Your task to perform on an android device: add a label to a message in the gmail app Image 0: 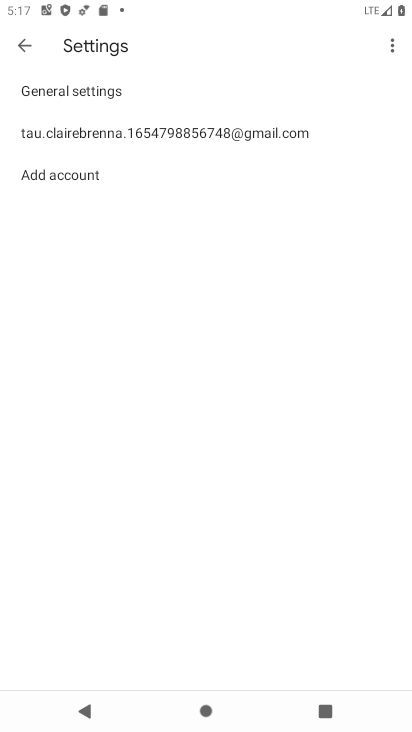
Step 0: press home button
Your task to perform on an android device: add a label to a message in the gmail app Image 1: 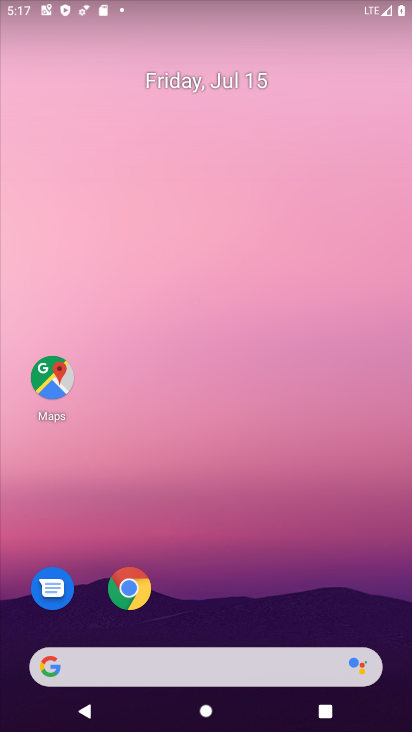
Step 1: drag from (281, 646) to (382, 27)
Your task to perform on an android device: add a label to a message in the gmail app Image 2: 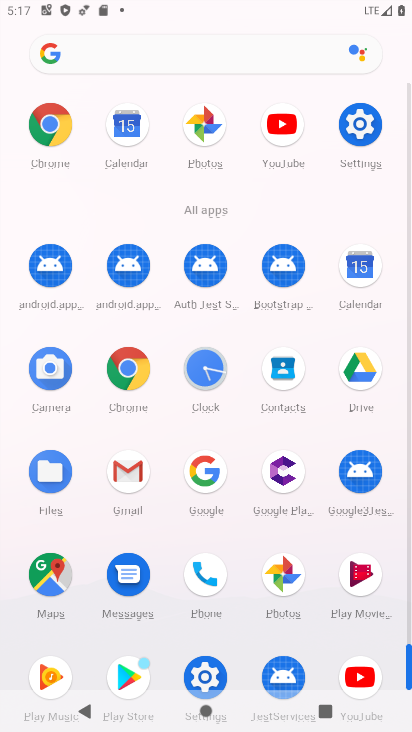
Step 2: click (124, 465)
Your task to perform on an android device: add a label to a message in the gmail app Image 3: 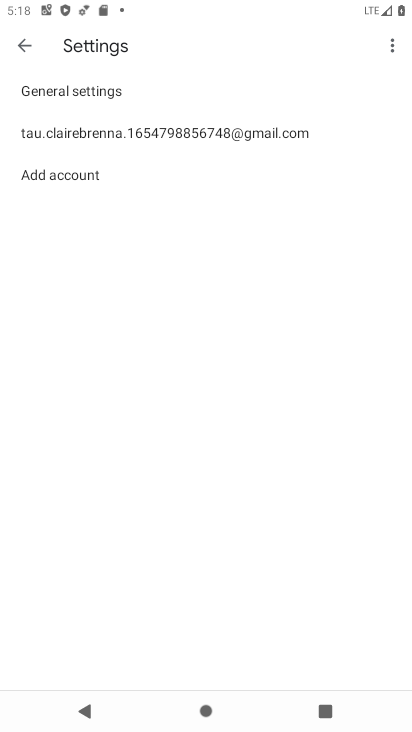
Step 3: press back button
Your task to perform on an android device: add a label to a message in the gmail app Image 4: 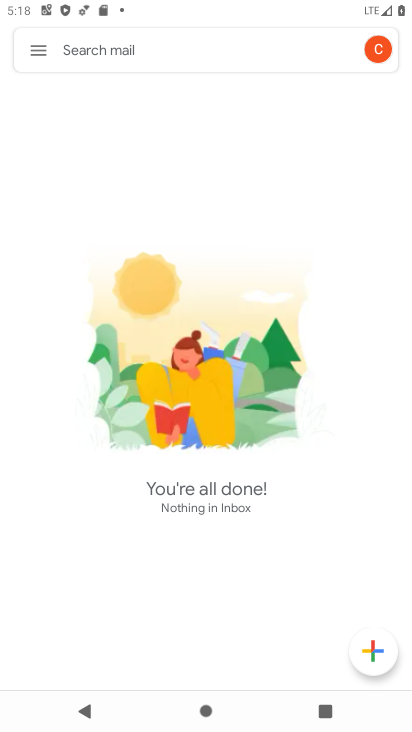
Step 4: click (40, 56)
Your task to perform on an android device: add a label to a message in the gmail app Image 5: 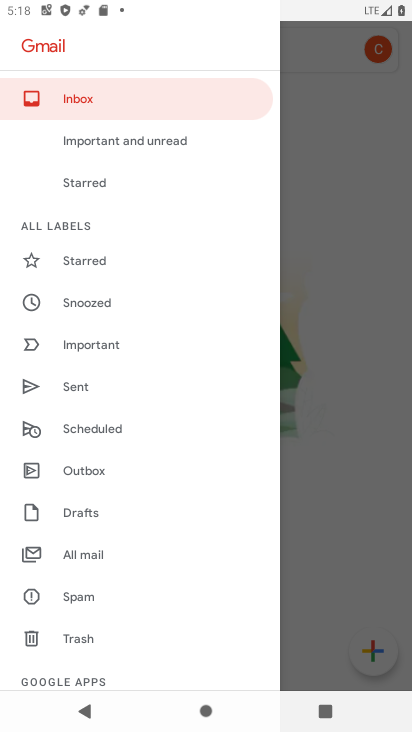
Step 5: drag from (146, 589) to (142, 144)
Your task to perform on an android device: add a label to a message in the gmail app Image 6: 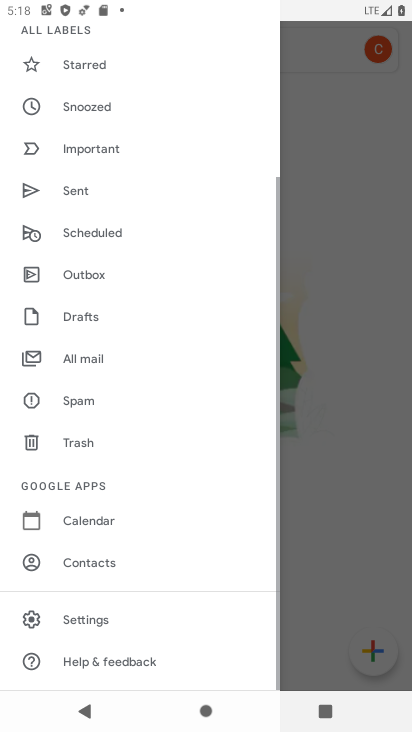
Step 6: click (125, 626)
Your task to perform on an android device: add a label to a message in the gmail app Image 7: 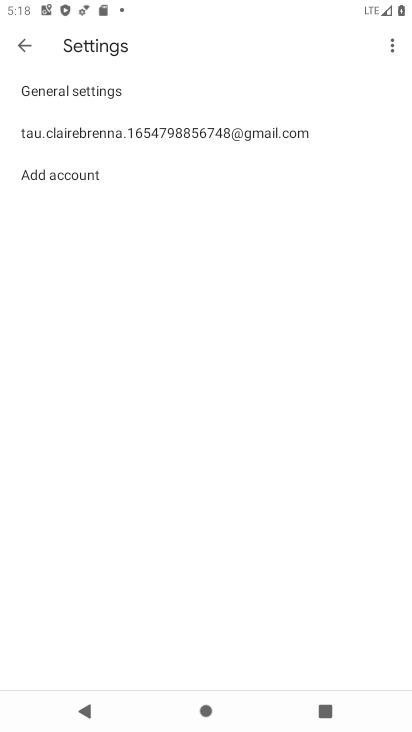
Step 7: press back button
Your task to perform on an android device: add a label to a message in the gmail app Image 8: 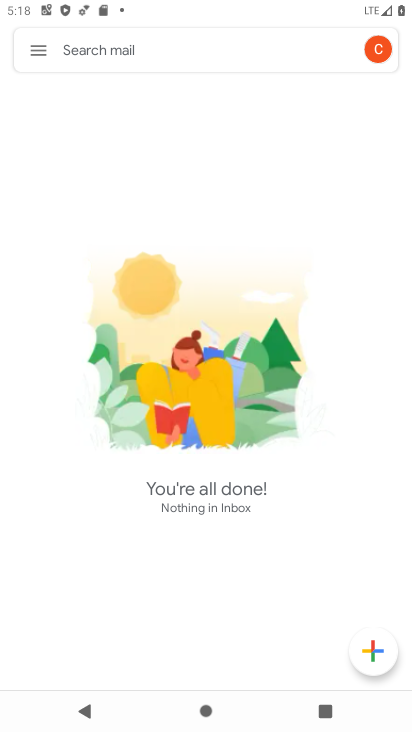
Step 8: click (30, 56)
Your task to perform on an android device: add a label to a message in the gmail app Image 9: 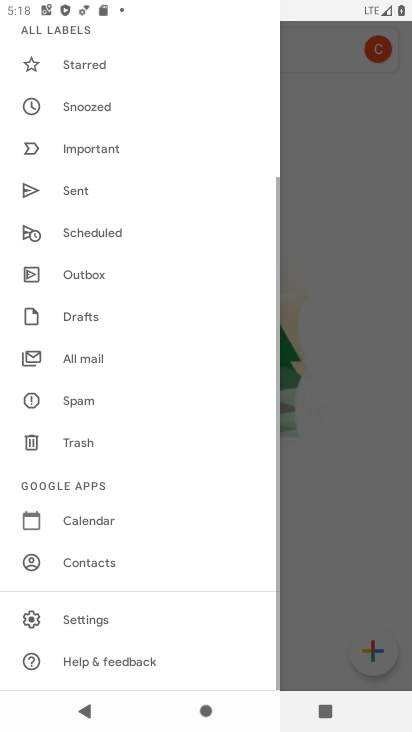
Step 9: drag from (111, 159) to (160, 564)
Your task to perform on an android device: add a label to a message in the gmail app Image 10: 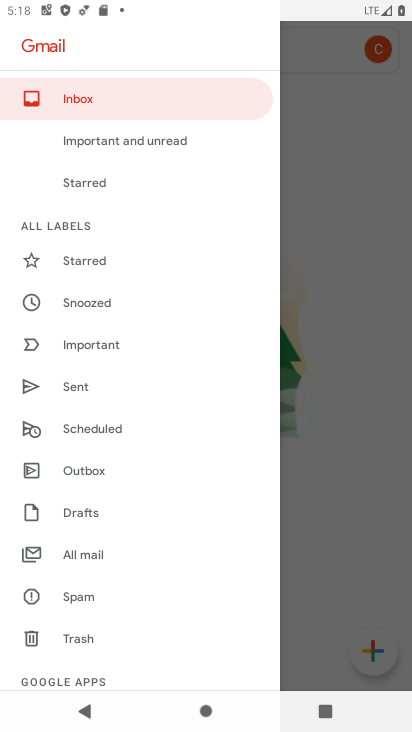
Step 10: click (107, 85)
Your task to perform on an android device: add a label to a message in the gmail app Image 11: 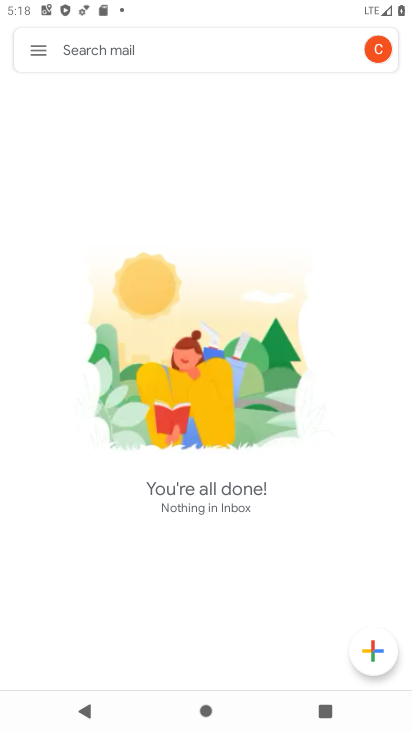
Step 11: task complete